Your task to perform on an android device: Open calendar and show me the fourth week of next month Image 0: 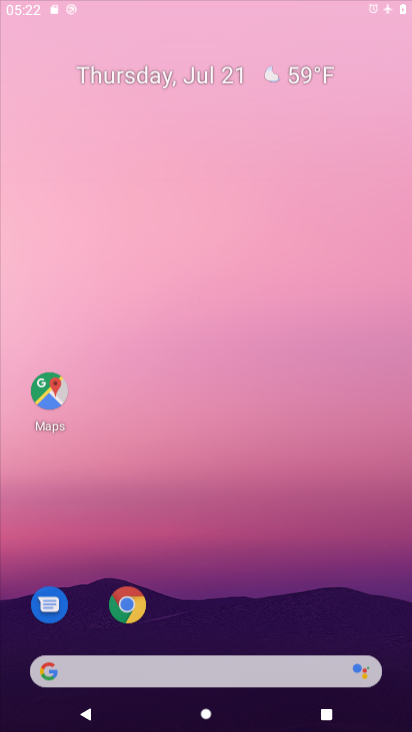
Step 0: press home button
Your task to perform on an android device: Open calendar and show me the fourth week of next month Image 1: 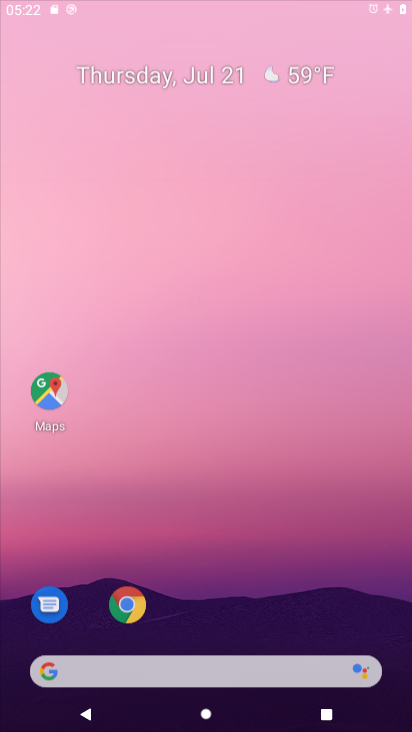
Step 1: click (406, 70)
Your task to perform on an android device: Open calendar and show me the fourth week of next month Image 2: 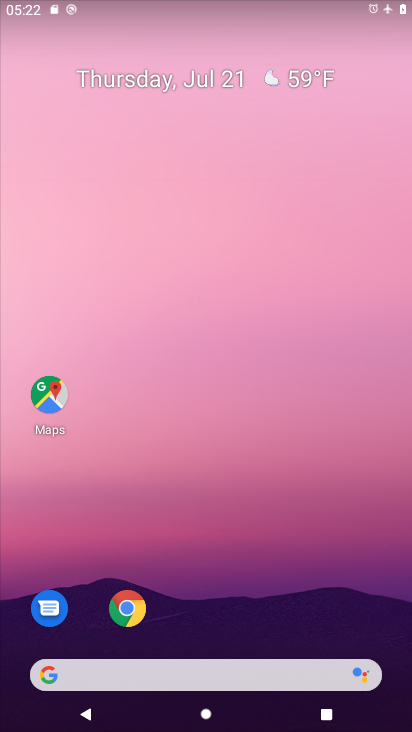
Step 2: drag from (242, 690) to (251, 83)
Your task to perform on an android device: Open calendar and show me the fourth week of next month Image 3: 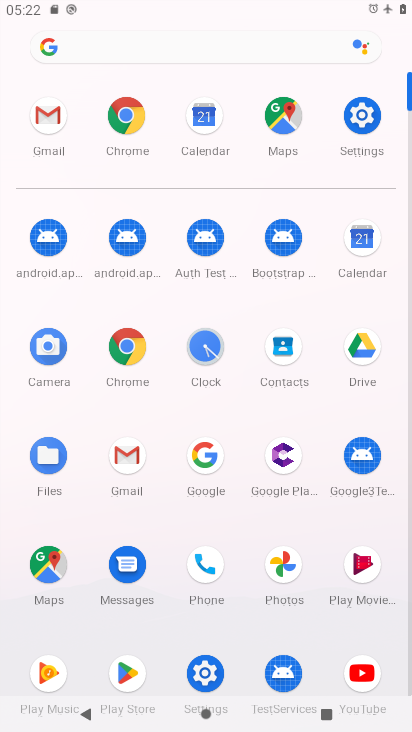
Step 3: click (371, 233)
Your task to perform on an android device: Open calendar and show me the fourth week of next month Image 4: 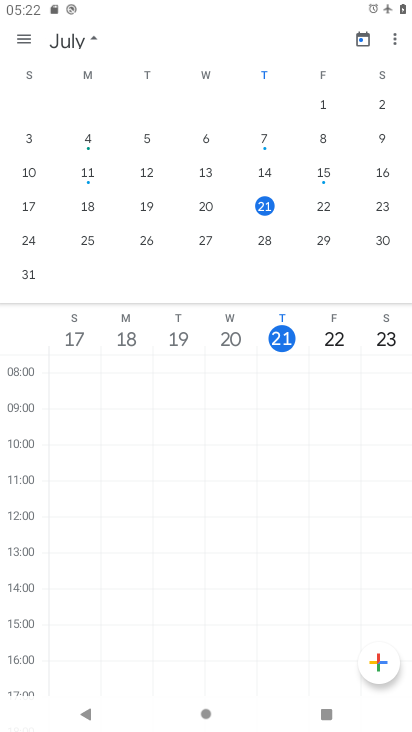
Step 4: click (89, 39)
Your task to perform on an android device: Open calendar and show me the fourth week of next month Image 5: 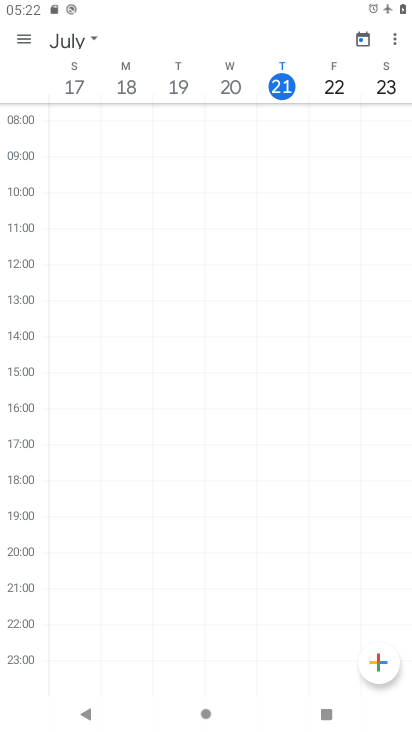
Step 5: click (99, 37)
Your task to perform on an android device: Open calendar and show me the fourth week of next month Image 6: 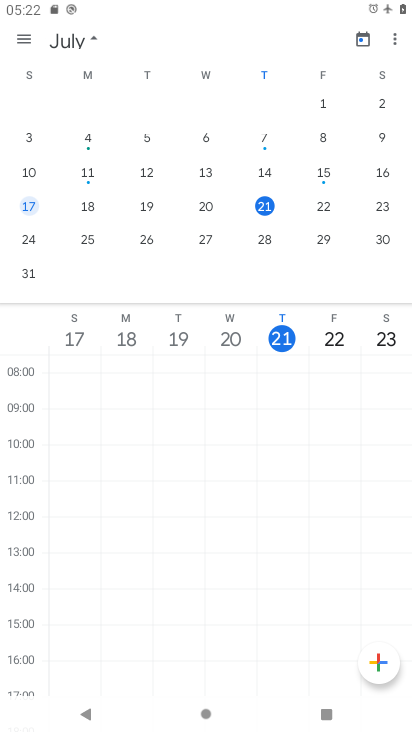
Step 6: drag from (367, 178) to (2, 187)
Your task to perform on an android device: Open calendar and show me the fourth week of next month Image 7: 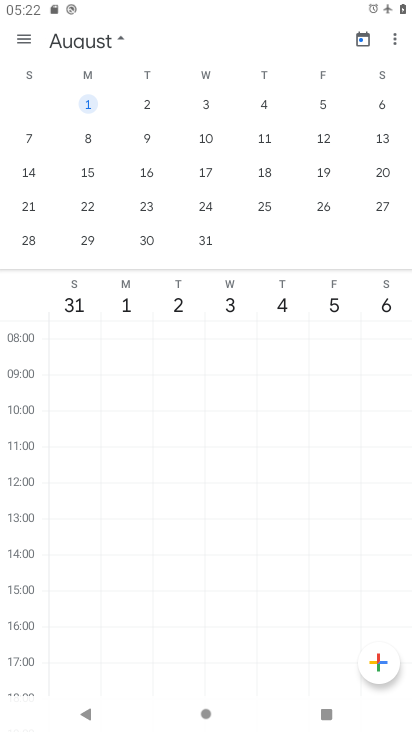
Step 7: click (202, 205)
Your task to perform on an android device: Open calendar and show me the fourth week of next month Image 8: 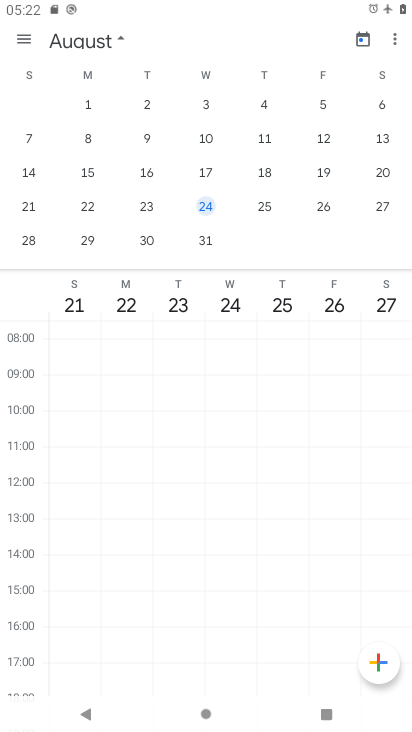
Step 8: task complete